Your task to perform on an android device: Open Wikipedia Image 0: 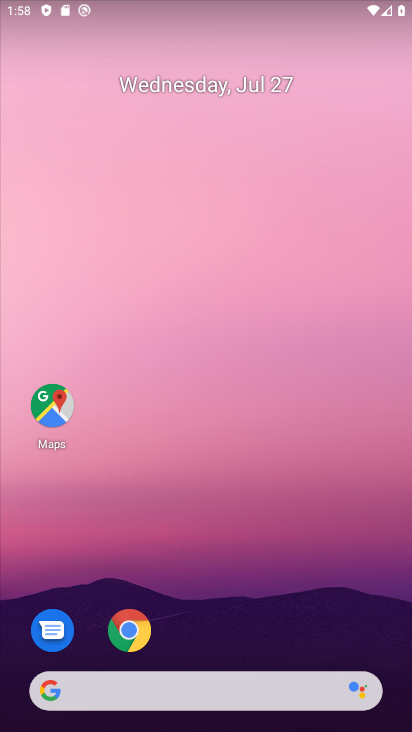
Step 0: click (137, 81)
Your task to perform on an android device: Open Wikipedia Image 1: 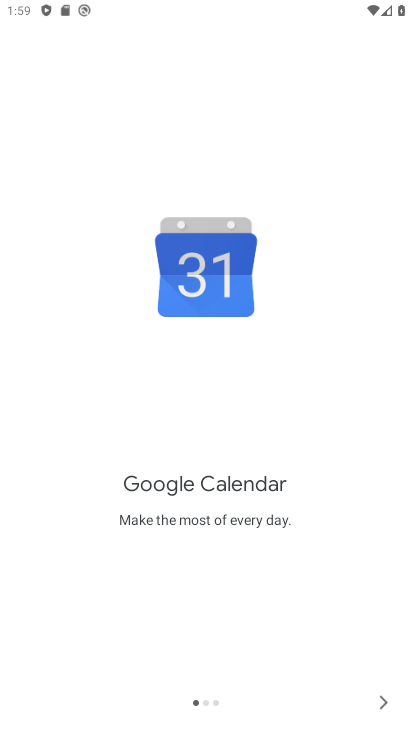
Step 1: drag from (280, 535) to (218, 95)
Your task to perform on an android device: Open Wikipedia Image 2: 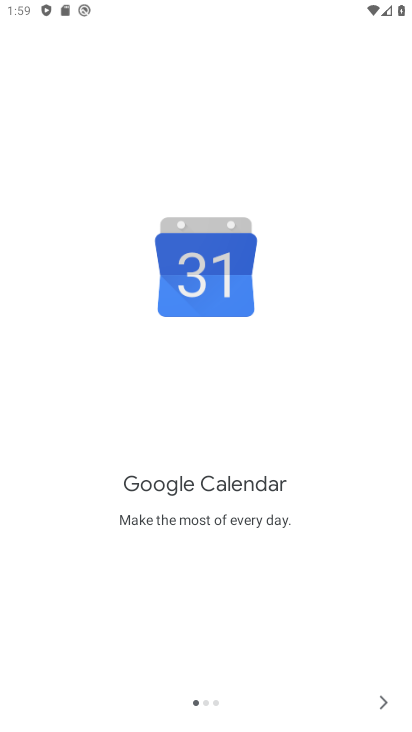
Step 2: drag from (225, 554) to (178, 200)
Your task to perform on an android device: Open Wikipedia Image 3: 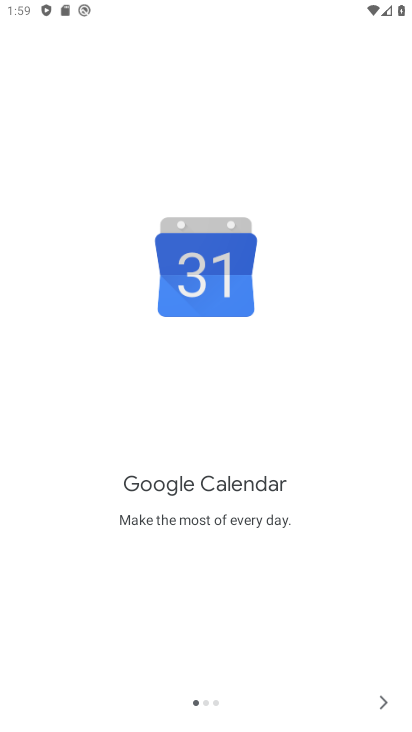
Step 3: press back button
Your task to perform on an android device: Open Wikipedia Image 4: 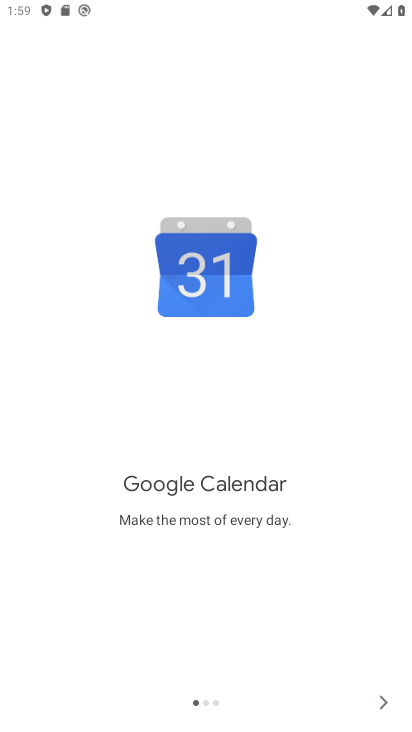
Step 4: press back button
Your task to perform on an android device: Open Wikipedia Image 5: 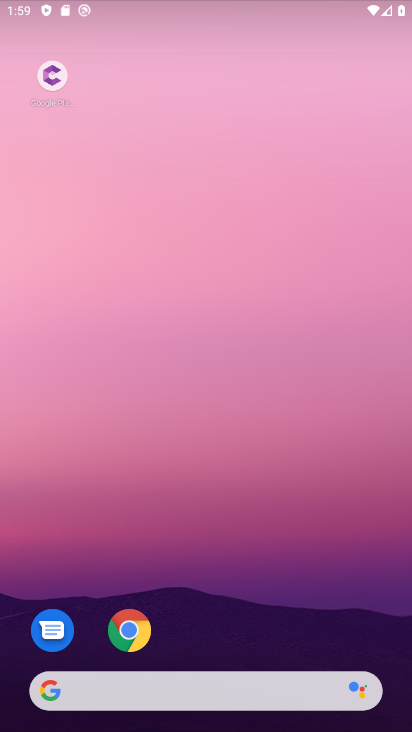
Step 5: press back button
Your task to perform on an android device: Open Wikipedia Image 6: 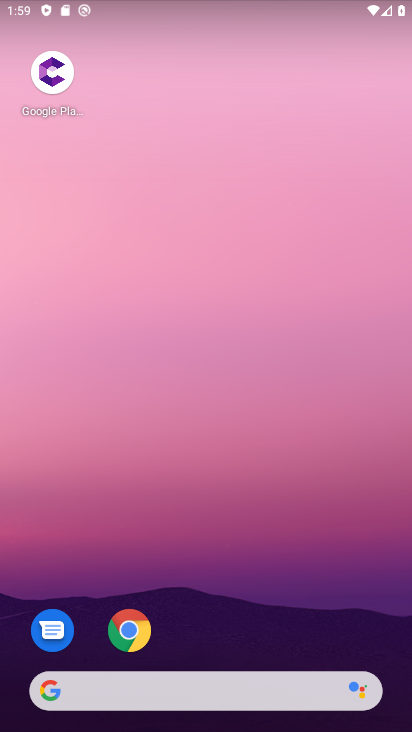
Step 6: drag from (239, 577) to (201, 85)
Your task to perform on an android device: Open Wikipedia Image 7: 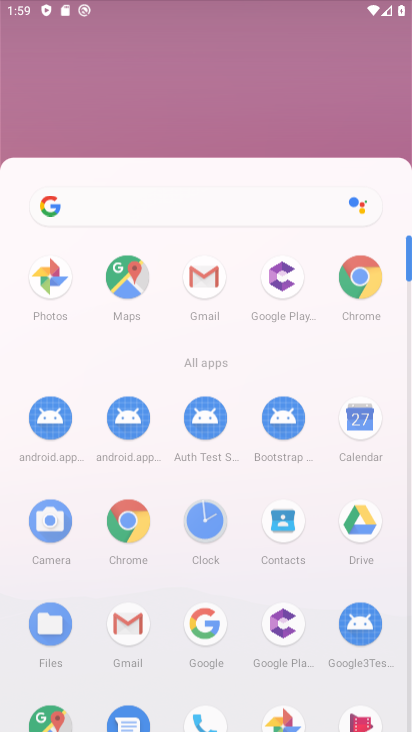
Step 7: drag from (197, 538) to (199, 53)
Your task to perform on an android device: Open Wikipedia Image 8: 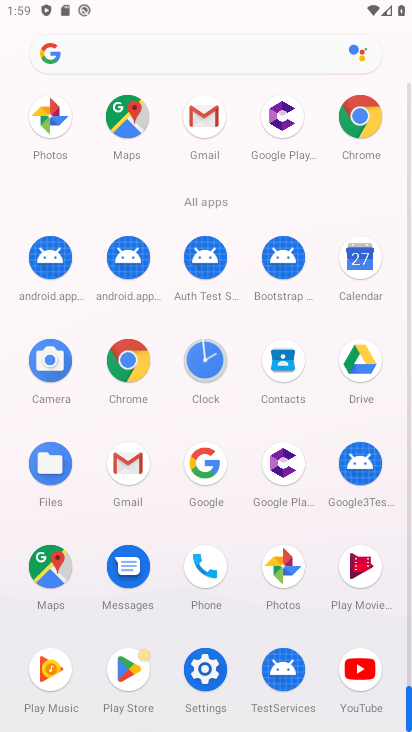
Step 8: click (357, 120)
Your task to perform on an android device: Open Wikipedia Image 9: 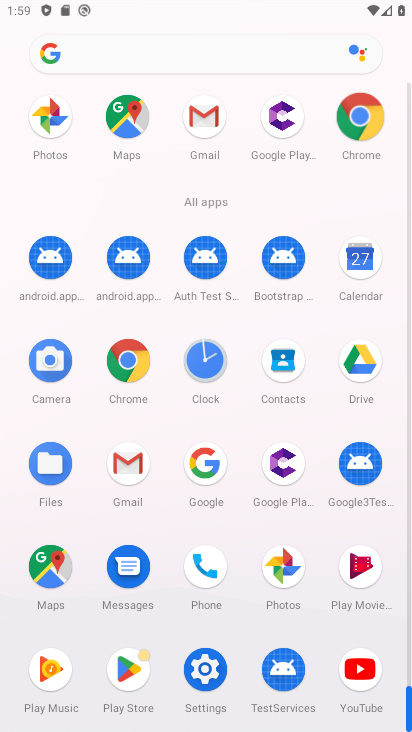
Step 9: click (355, 122)
Your task to perform on an android device: Open Wikipedia Image 10: 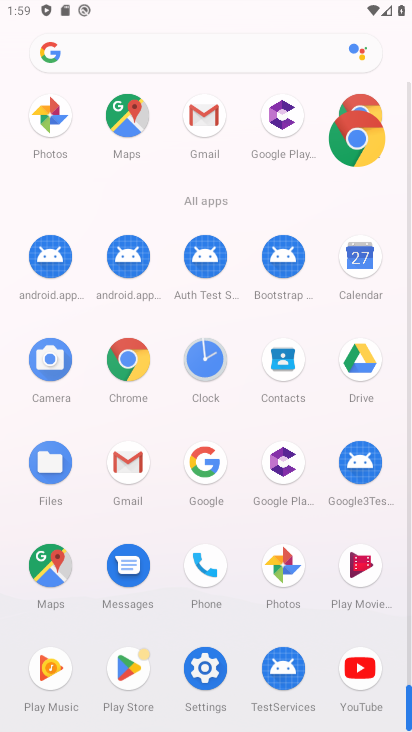
Step 10: click (355, 122)
Your task to perform on an android device: Open Wikipedia Image 11: 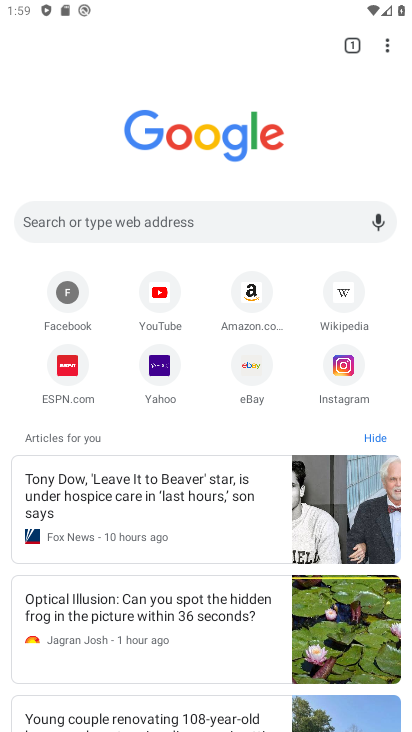
Step 11: click (344, 300)
Your task to perform on an android device: Open Wikipedia Image 12: 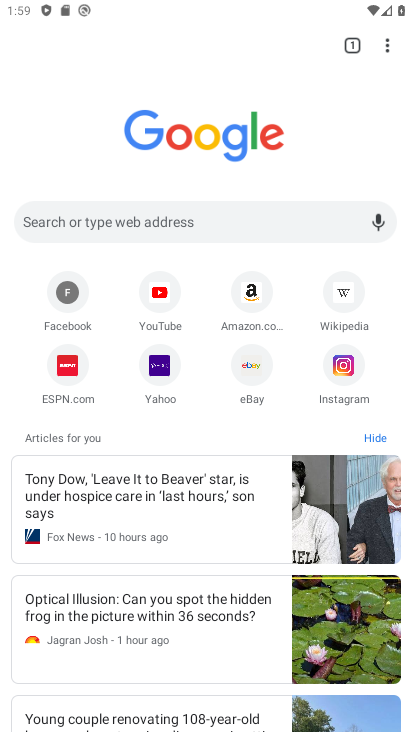
Step 12: click (344, 301)
Your task to perform on an android device: Open Wikipedia Image 13: 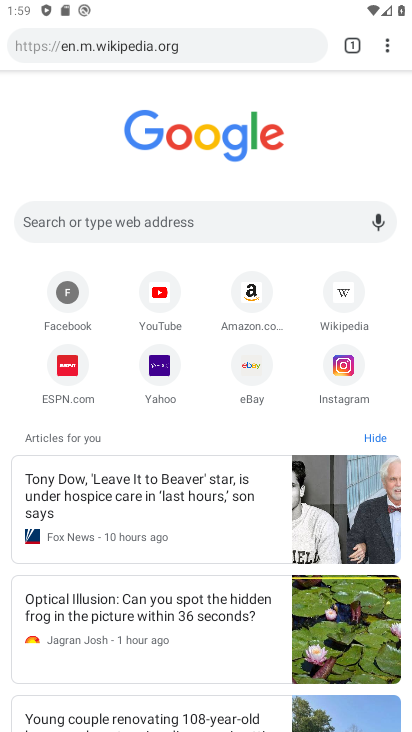
Step 13: click (347, 298)
Your task to perform on an android device: Open Wikipedia Image 14: 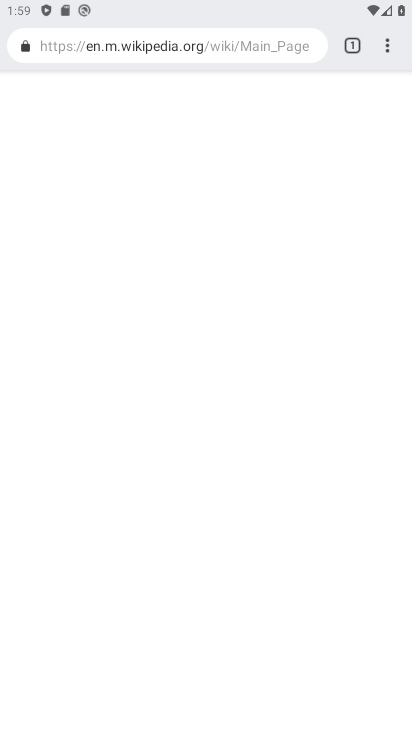
Step 14: task complete